Your task to perform on an android device: Empty the shopping cart on bestbuy.com. Search for bose soundlink on bestbuy.com, select the first entry, and add it to the cart. Image 0: 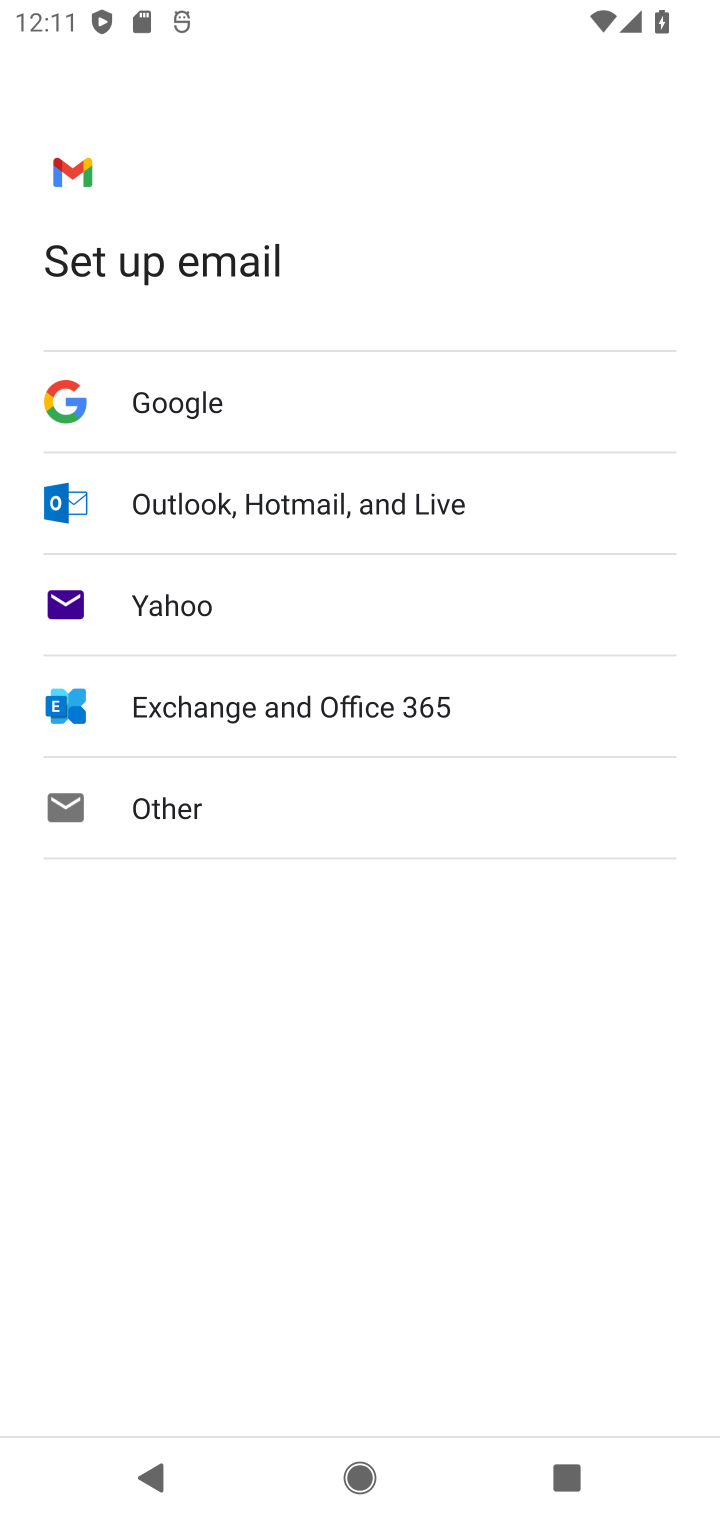
Step 0: press home button
Your task to perform on an android device: Empty the shopping cart on bestbuy.com. Search for bose soundlink on bestbuy.com, select the first entry, and add it to the cart. Image 1: 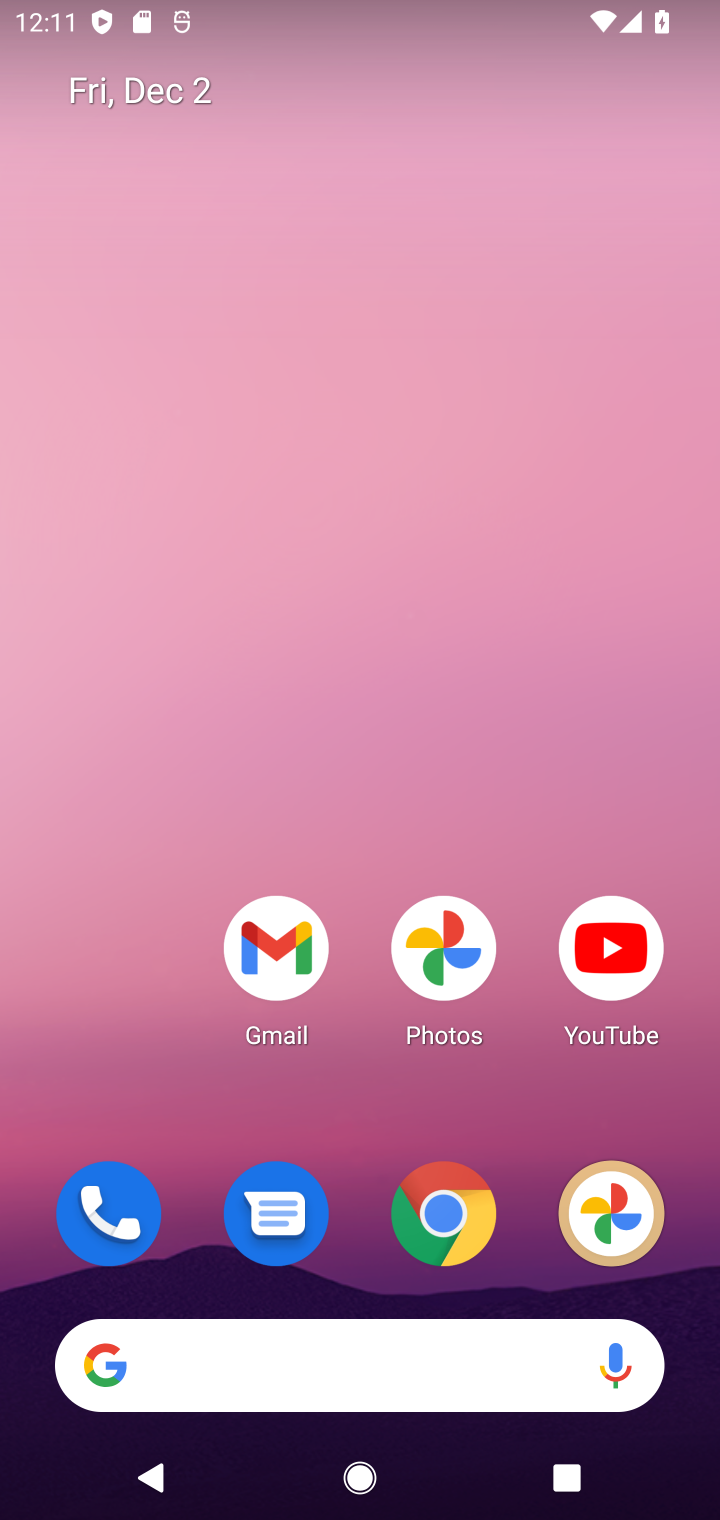
Step 1: drag from (300, 1216) to (320, 363)
Your task to perform on an android device: Empty the shopping cart on bestbuy.com. Search for bose soundlink on bestbuy.com, select the first entry, and add it to the cart. Image 2: 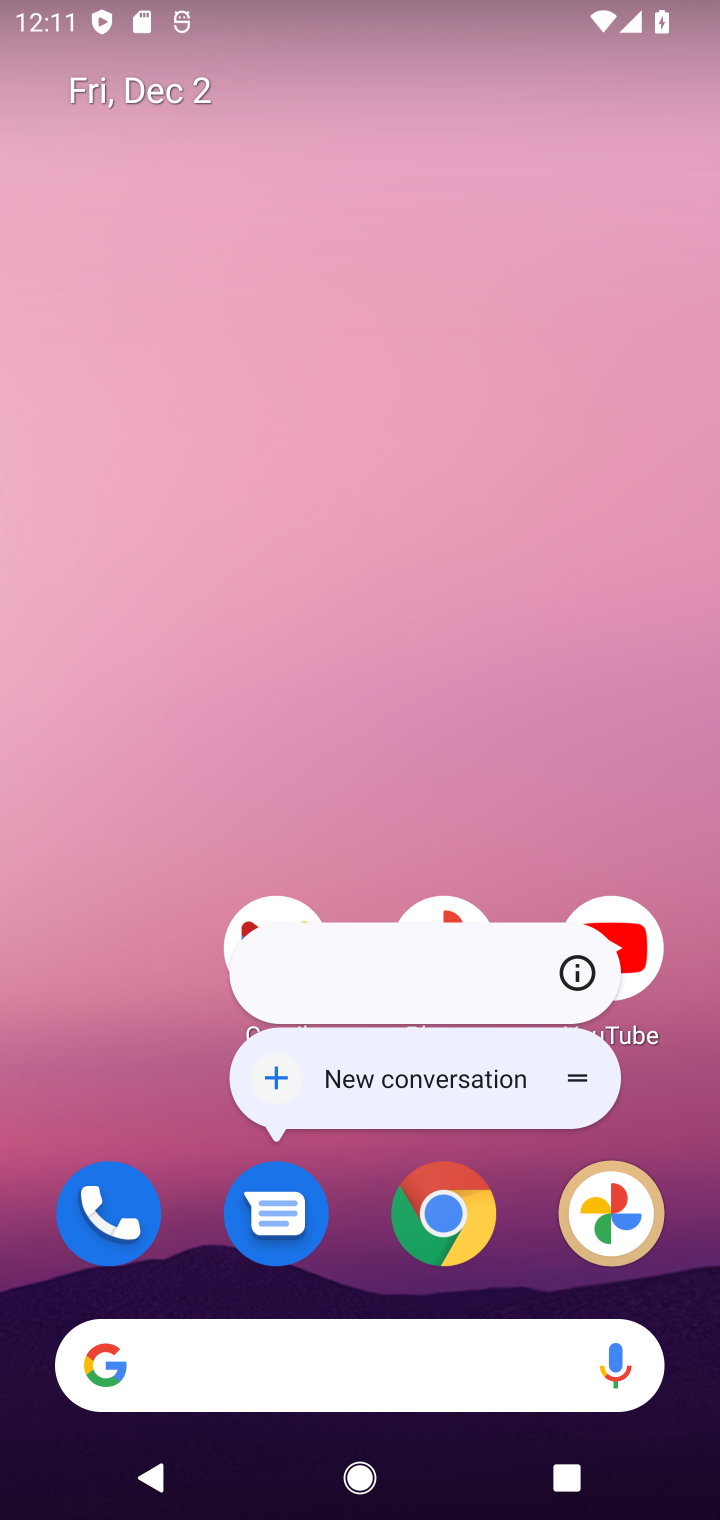
Step 2: drag from (405, 1184) to (408, 494)
Your task to perform on an android device: Empty the shopping cart on bestbuy.com. Search for bose soundlink on bestbuy.com, select the first entry, and add it to the cart. Image 3: 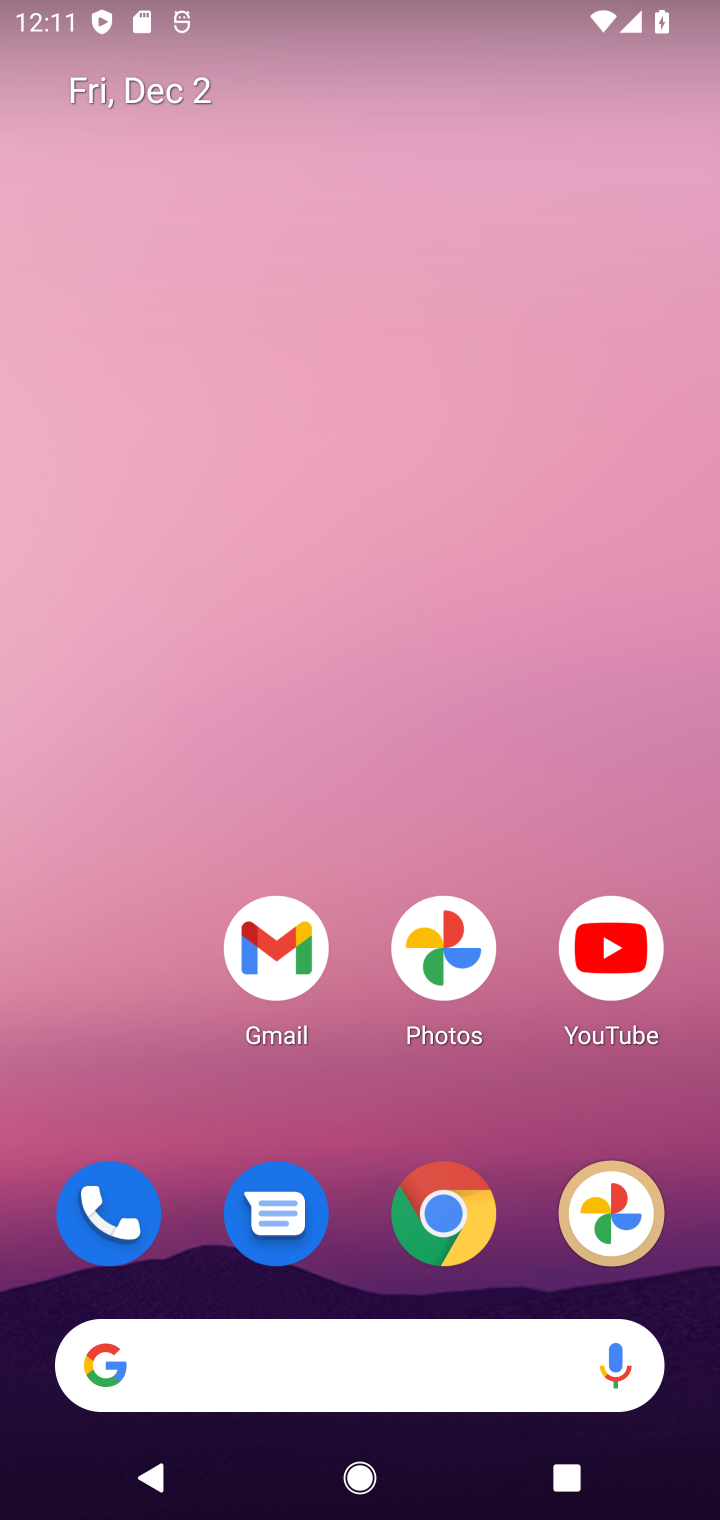
Step 3: drag from (338, 959) to (261, 280)
Your task to perform on an android device: Empty the shopping cart on bestbuy.com. Search for bose soundlink on bestbuy.com, select the first entry, and add it to the cart. Image 4: 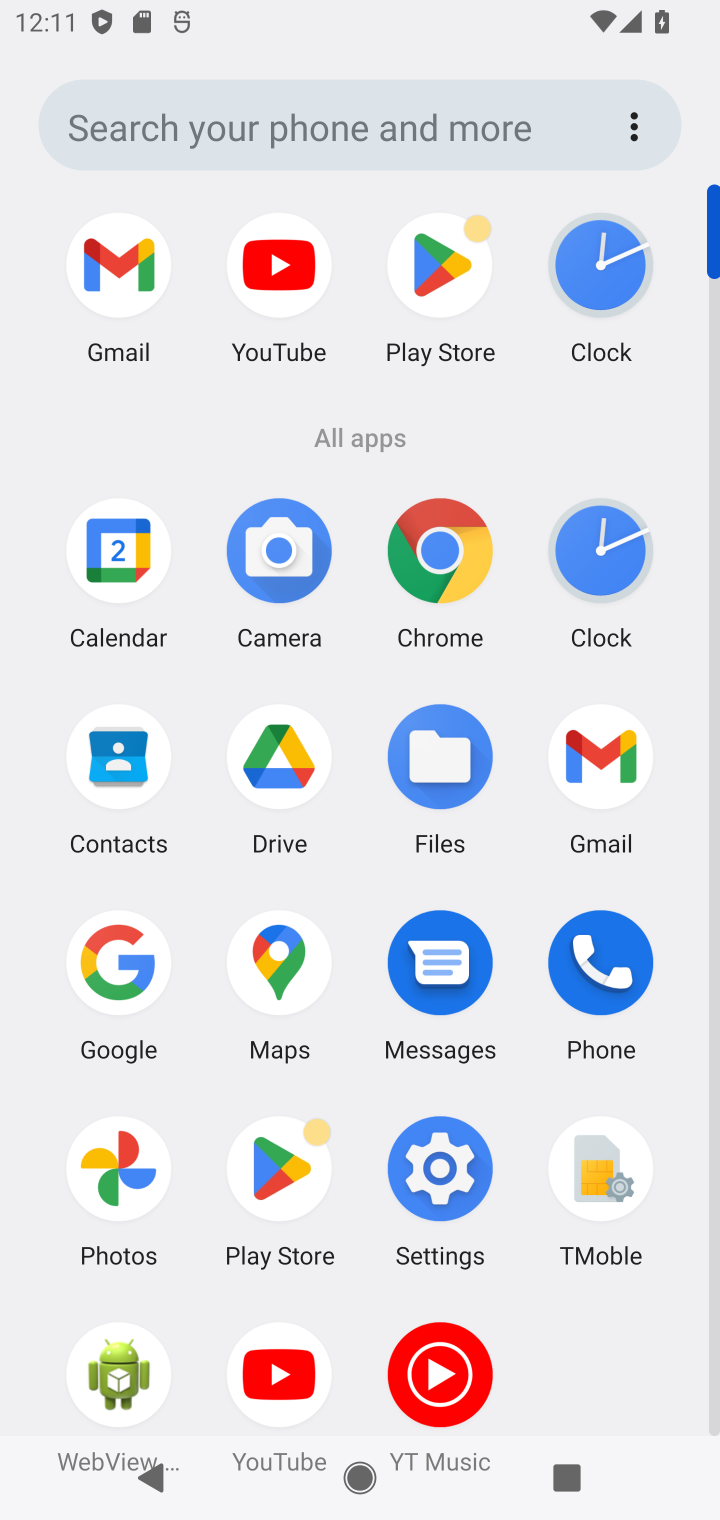
Step 4: click (128, 983)
Your task to perform on an android device: Empty the shopping cart on bestbuy.com. Search for bose soundlink on bestbuy.com, select the first entry, and add it to the cart. Image 5: 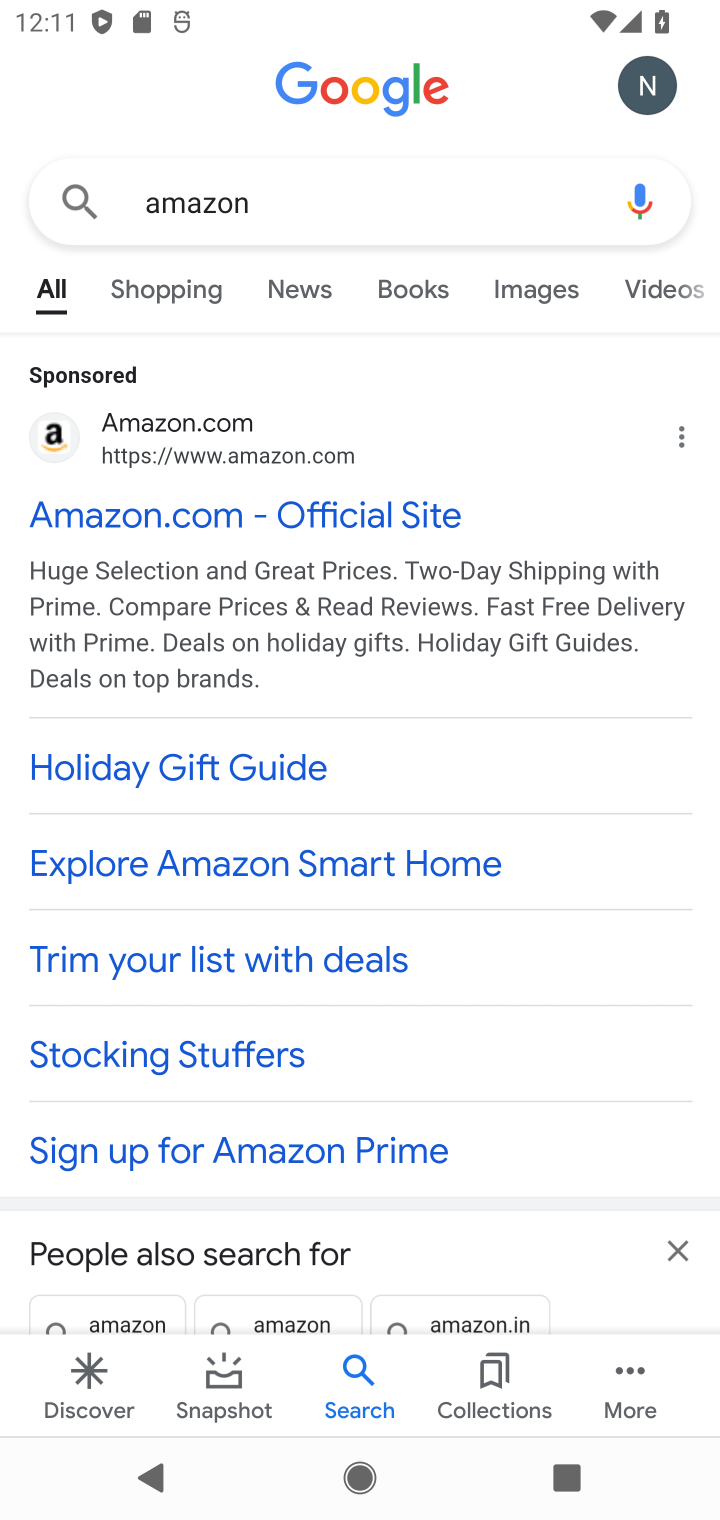
Step 5: click (277, 197)
Your task to perform on an android device: Empty the shopping cart on bestbuy.com. Search for bose soundlink on bestbuy.com, select the first entry, and add it to the cart. Image 6: 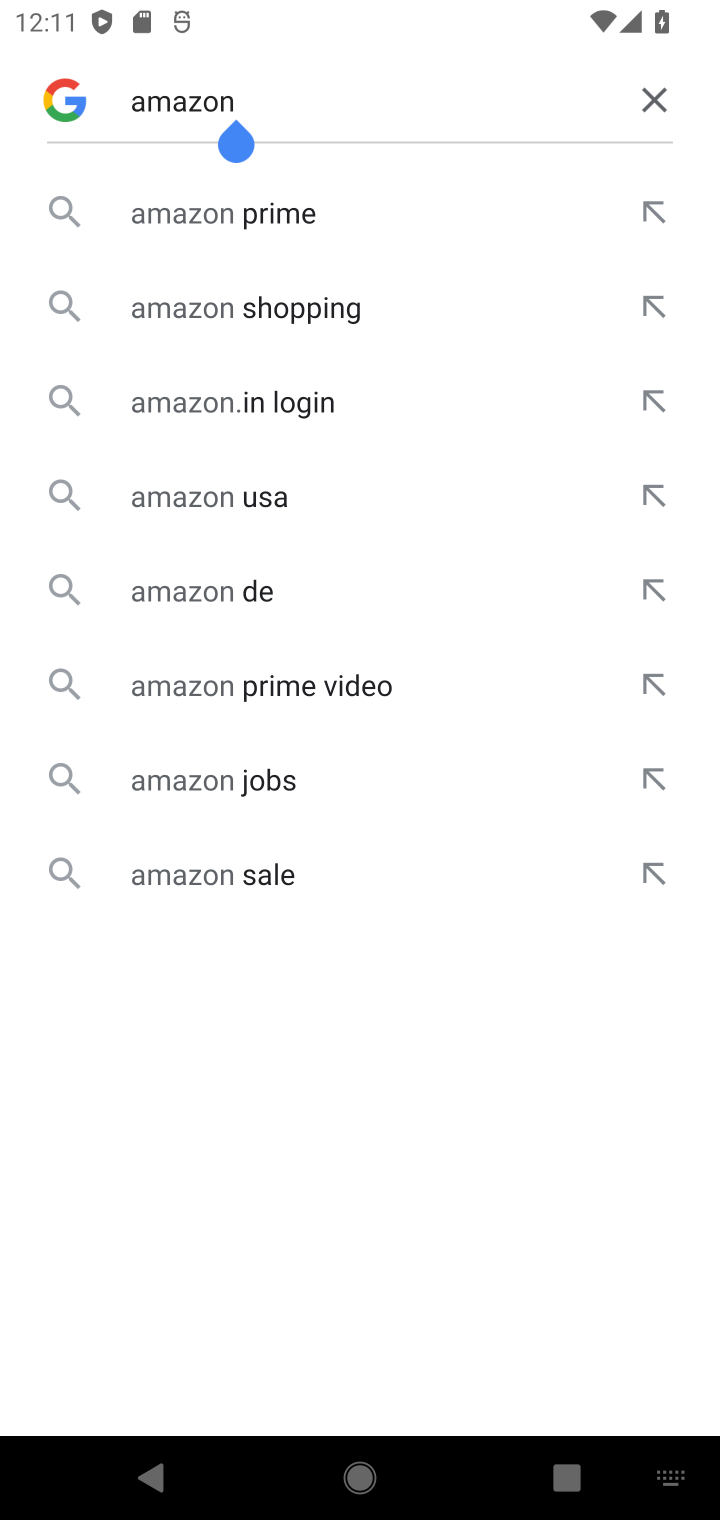
Step 6: click (650, 91)
Your task to perform on an android device: Empty the shopping cart on bestbuy.com. Search for bose soundlink on bestbuy.com, select the first entry, and add it to the cart. Image 7: 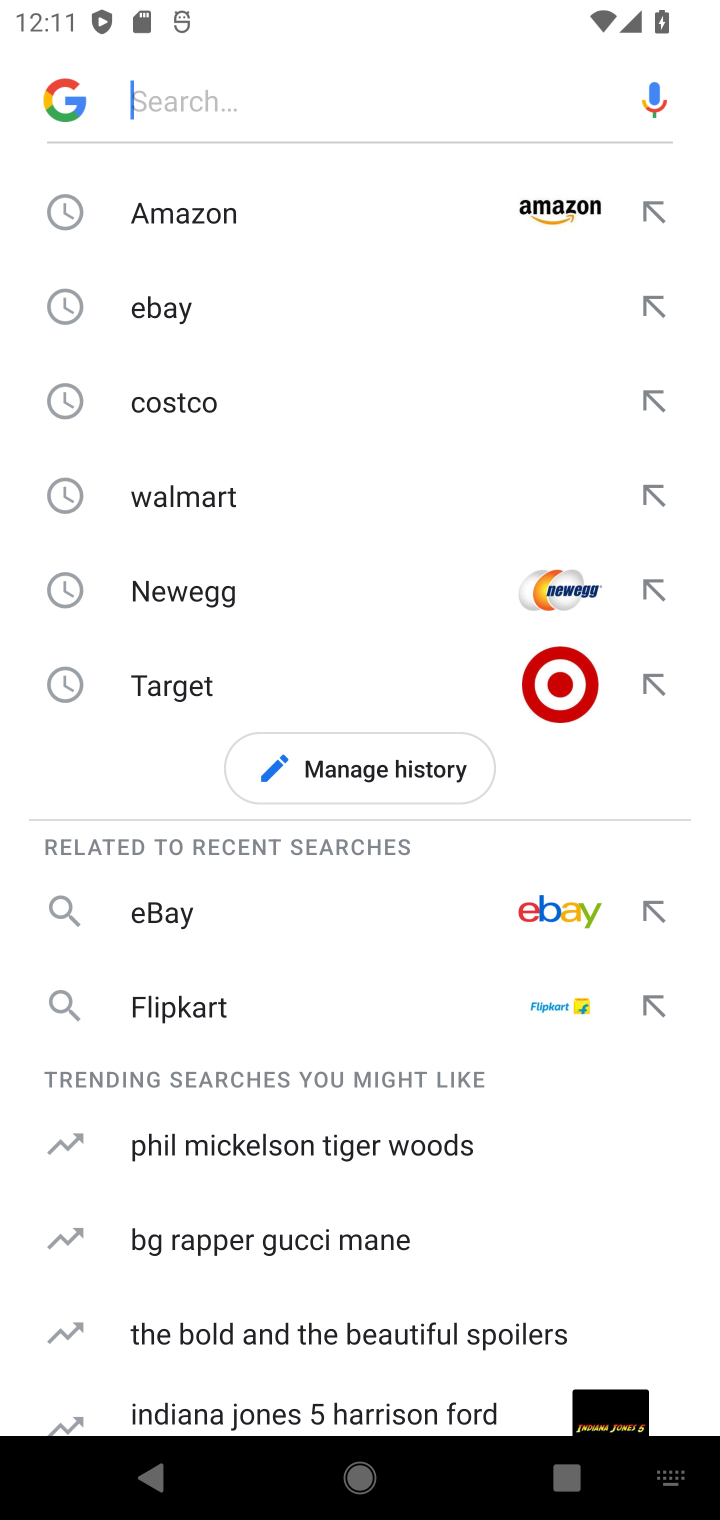
Step 7: drag from (177, 768) to (218, 127)
Your task to perform on an android device: Empty the shopping cart on bestbuy.com. Search for bose soundlink on bestbuy.com, select the first entry, and add it to the cart. Image 8: 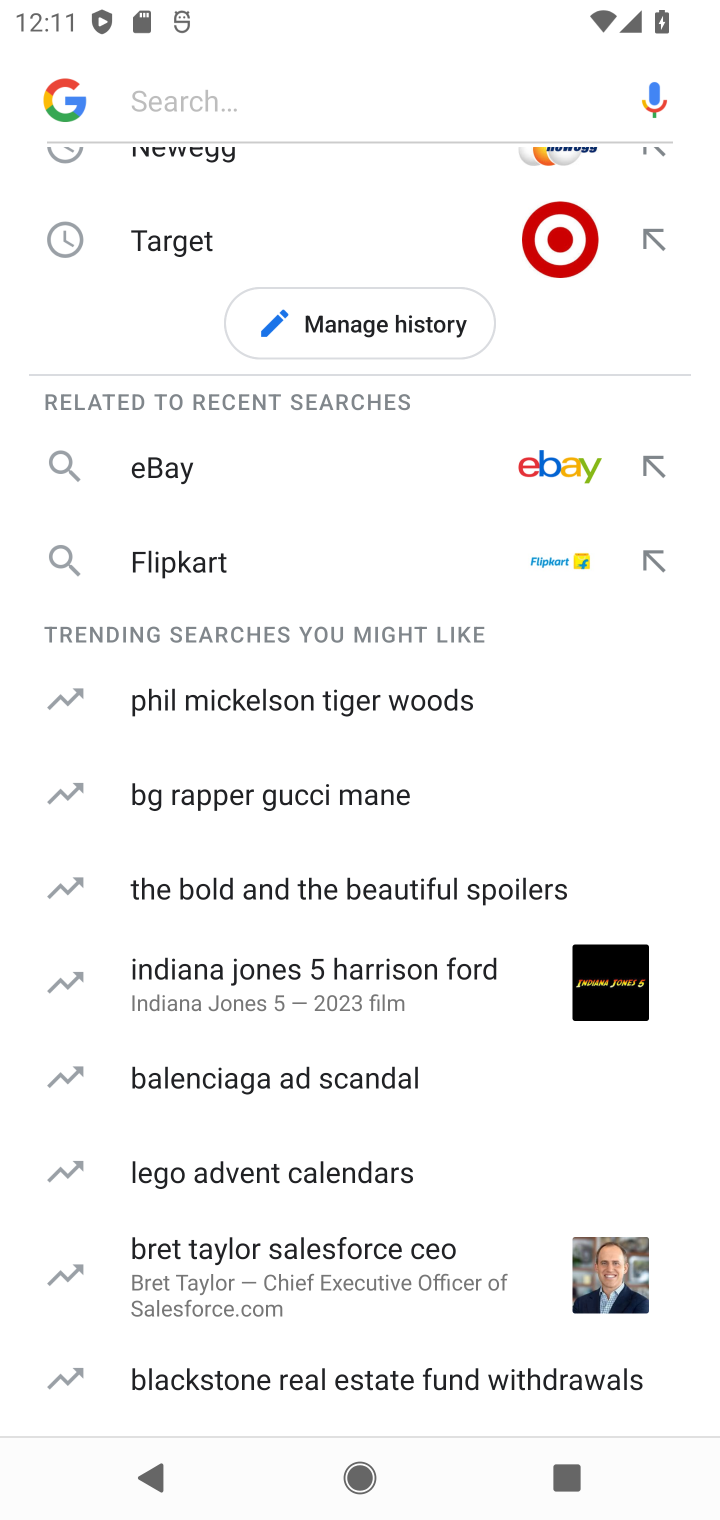
Step 8: drag from (337, 1227) to (337, 612)
Your task to perform on an android device: Empty the shopping cart on bestbuy.com. Search for bose soundlink on bestbuy.com, select the first entry, and add it to the cart. Image 9: 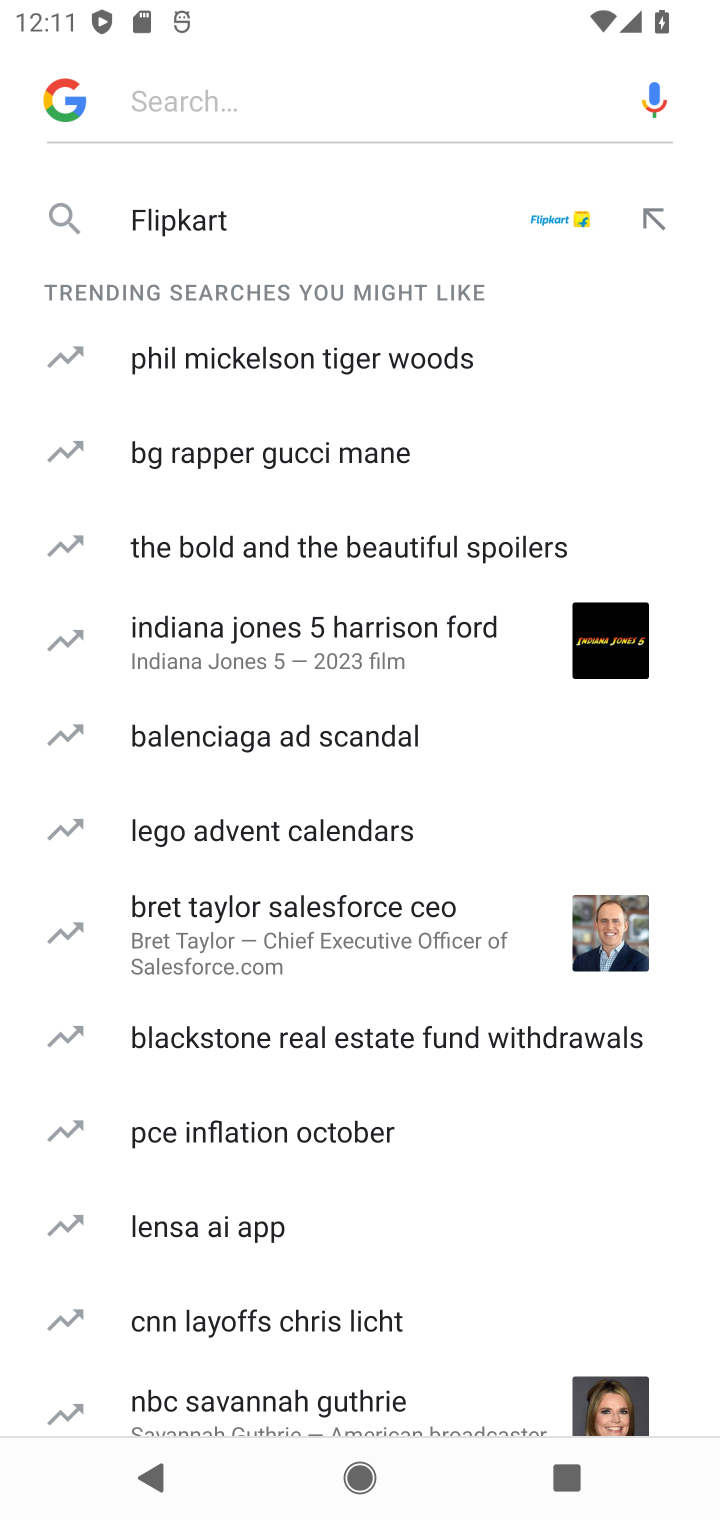
Step 9: drag from (304, 1398) to (312, 650)
Your task to perform on an android device: Empty the shopping cart on bestbuy.com. Search for bose soundlink on bestbuy.com, select the first entry, and add it to the cart. Image 10: 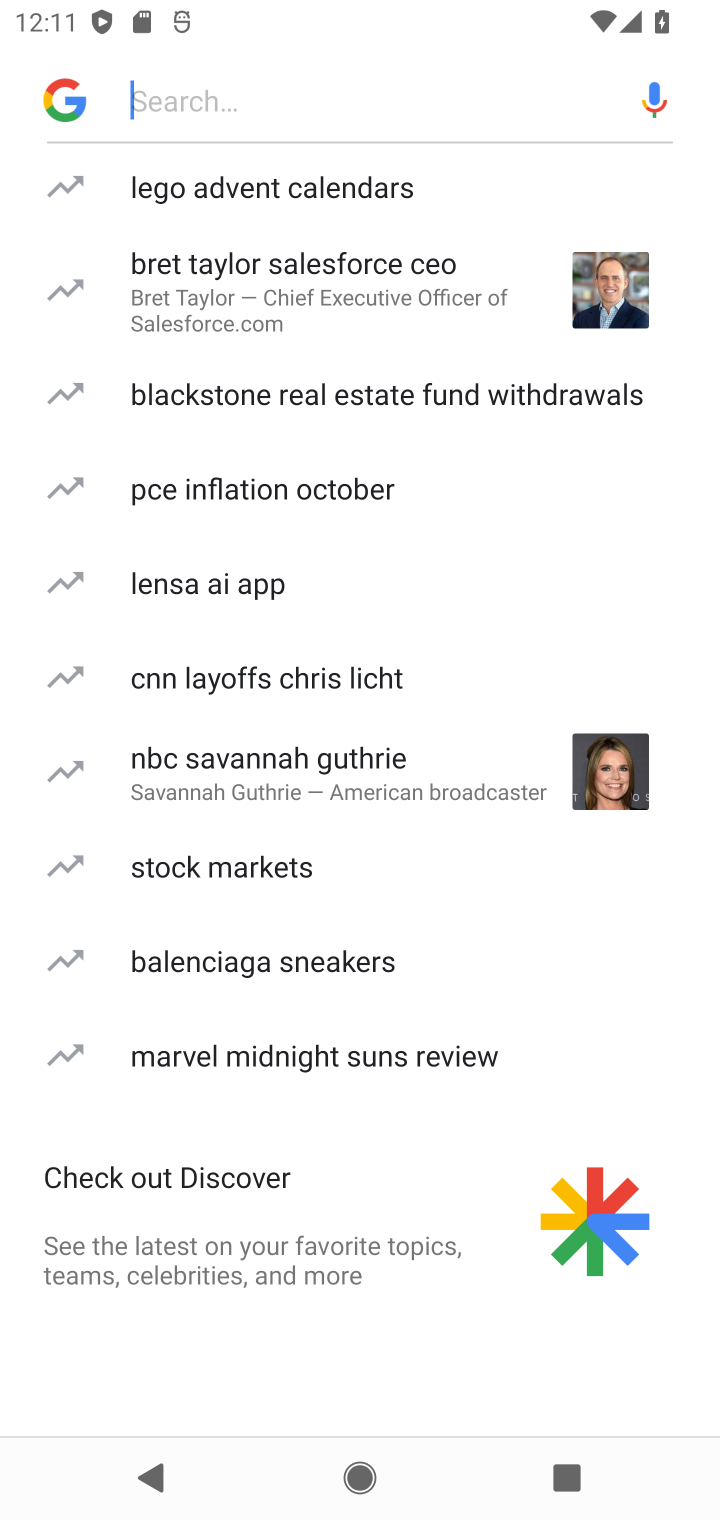
Step 10: drag from (409, 221) to (495, 1078)
Your task to perform on an android device: Empty the shopping cart on bestbuy.com. Search for bose soundlink on bestbuy.com, select the first entry, and add it to the cart. Image 11: 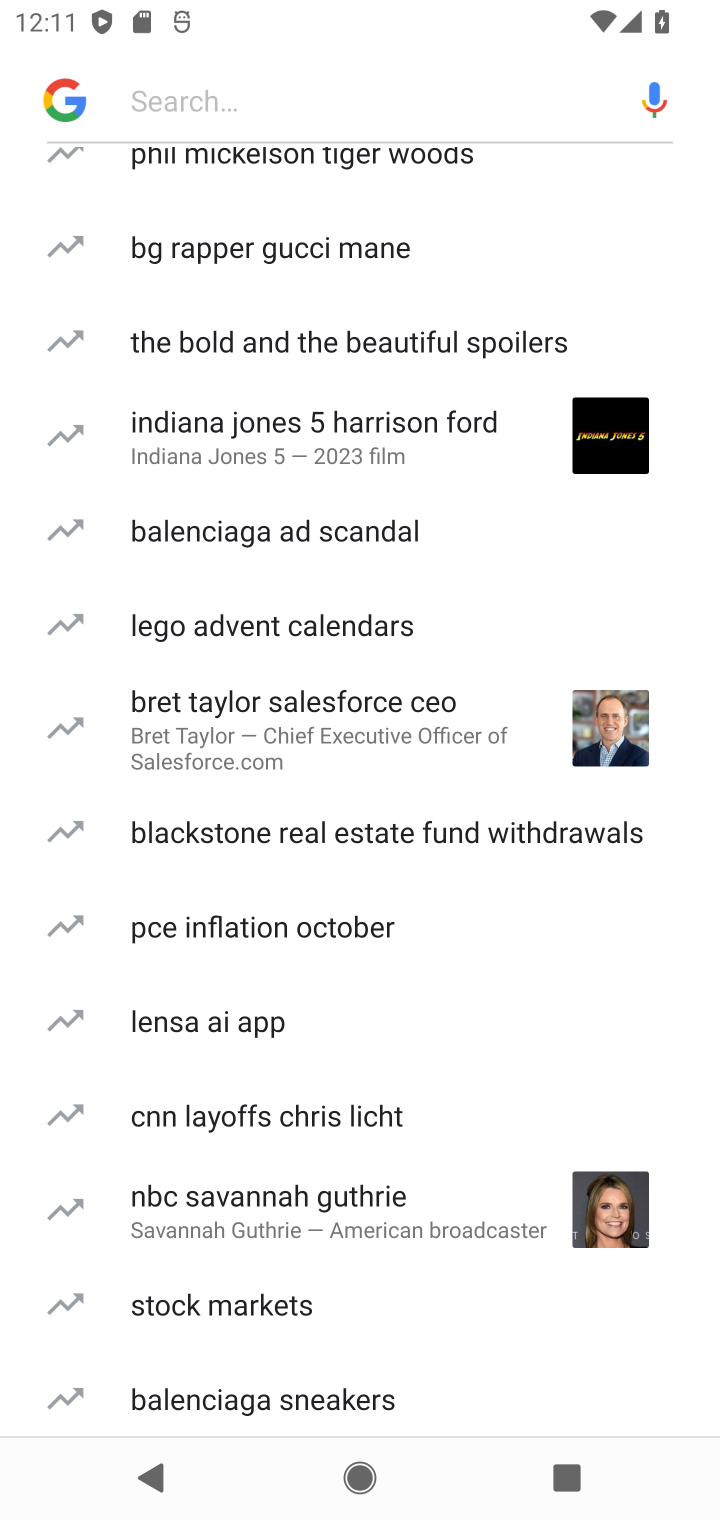
Step 11: drag from (181, 193) to (287, 902)
Your task to perform on an android device: Empty the shopping cart on bestbuy.com. Search for bose soundlink on bestbuy.com, select the first entry, and add it to the cart. Image 12: 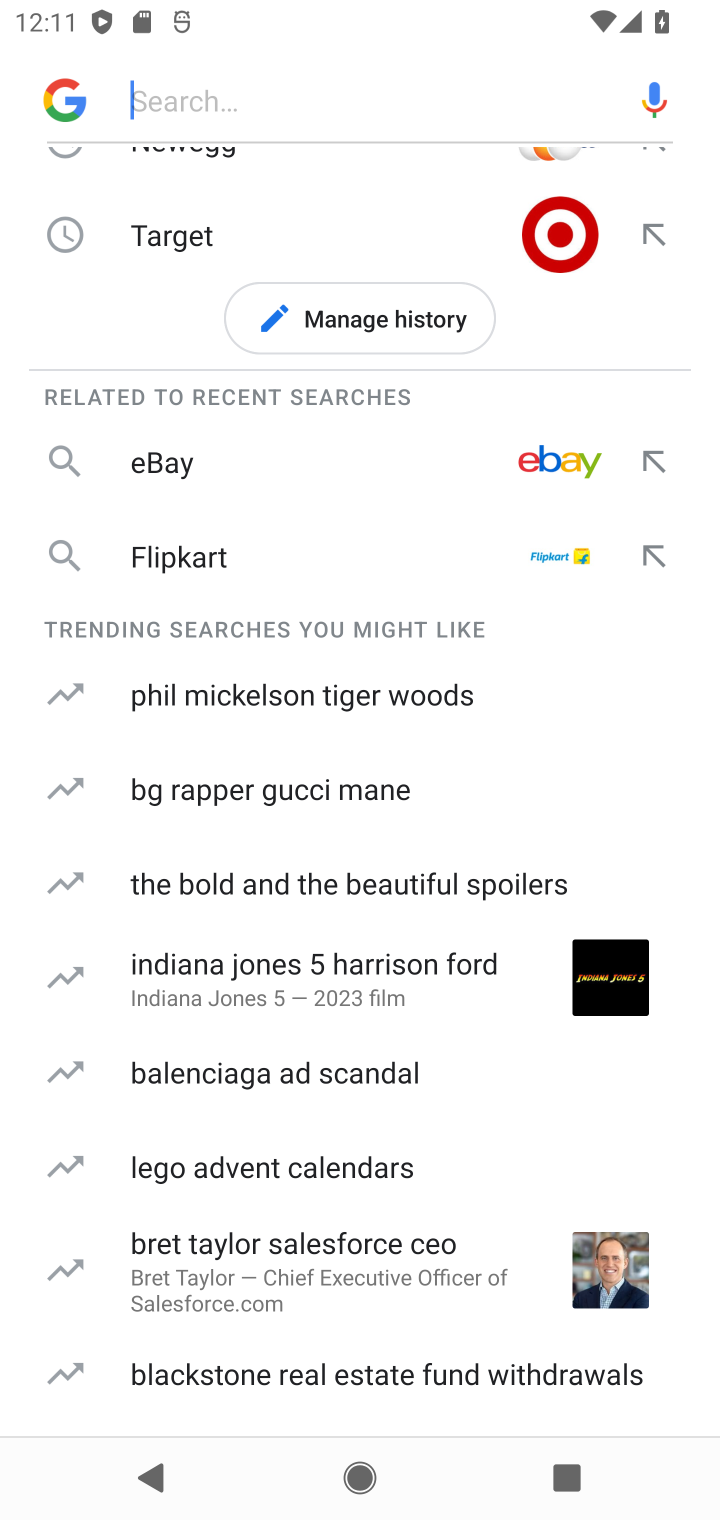
Step 12: drag from (157, 281) to (294, 912)
Your task to perform on an android device: Empty the shopping cart on bestbuy.com. Search for bose soundlink on bestbuy.com, select the first entry, and add it to the cart. Image 13: 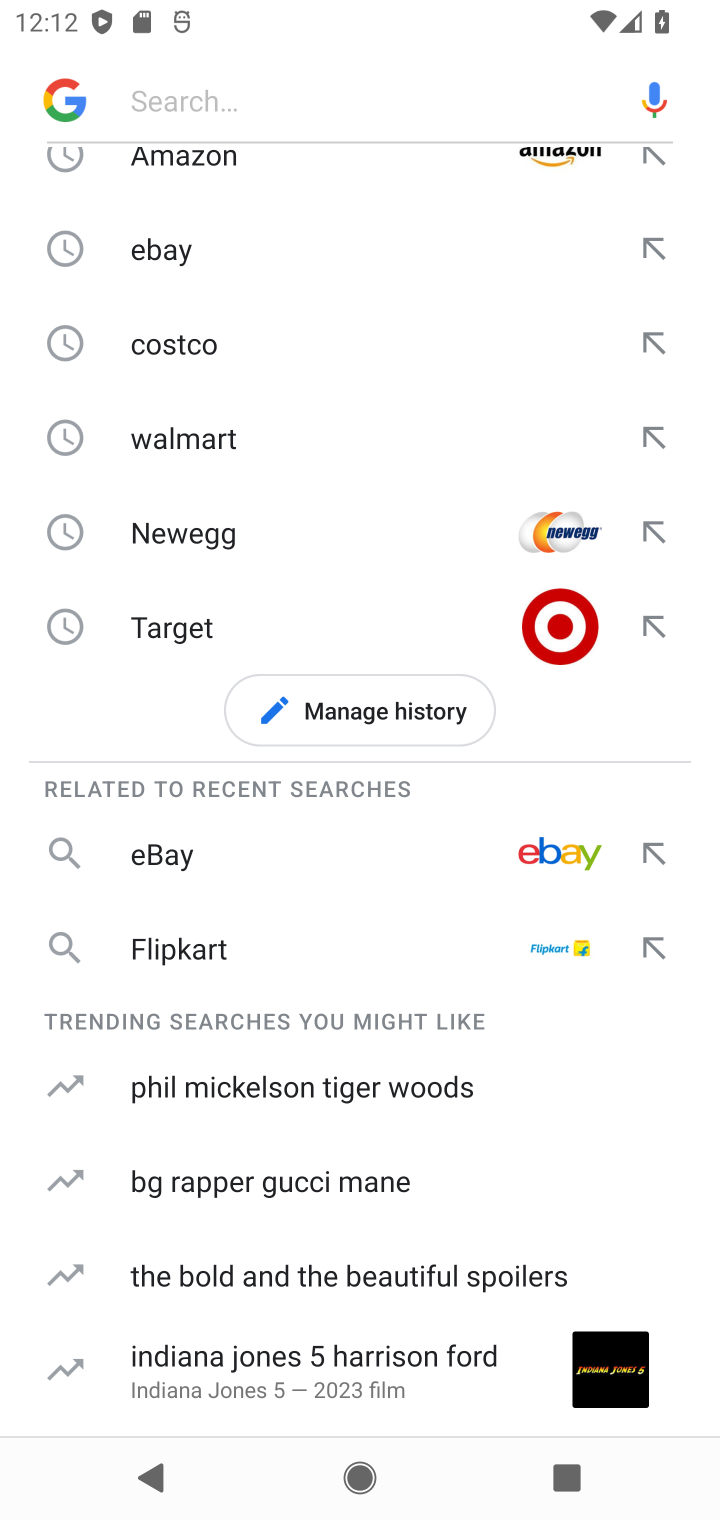
Step 13: drag from (240, 316) to (340, 937)
Your task to perform on an android device: Empty the shopping cart on bestbuy.com. Search for bose soundlink on bestbuy.com, select the first entry, and add it to the cart. Image 14: 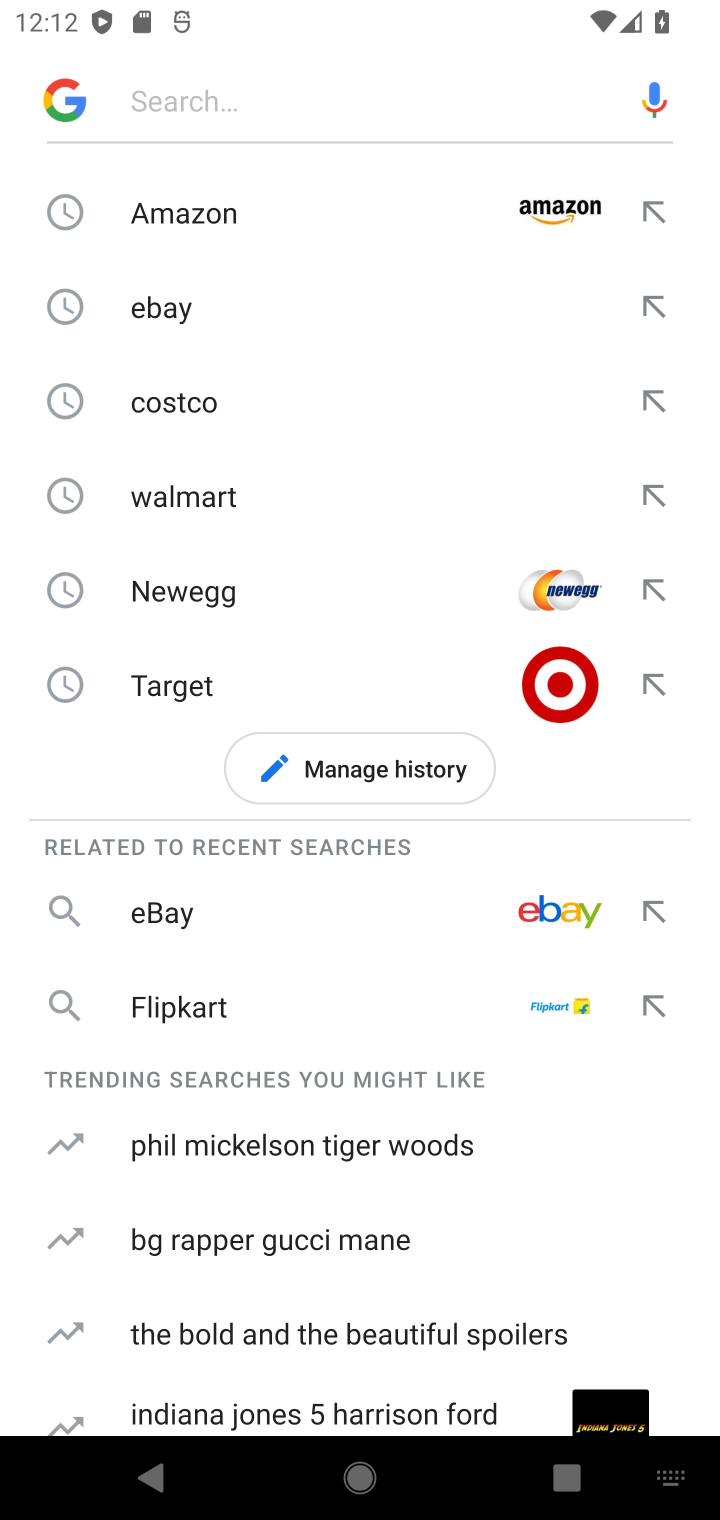
Step 14: drag from (183, 195) to (281, 840)
Your task to perform on an android device: Empty the shopping cart on bestbuy.com. Search for bose soundlink on bestbuy.com, select the first entry, and add it to the cart. Image 15: 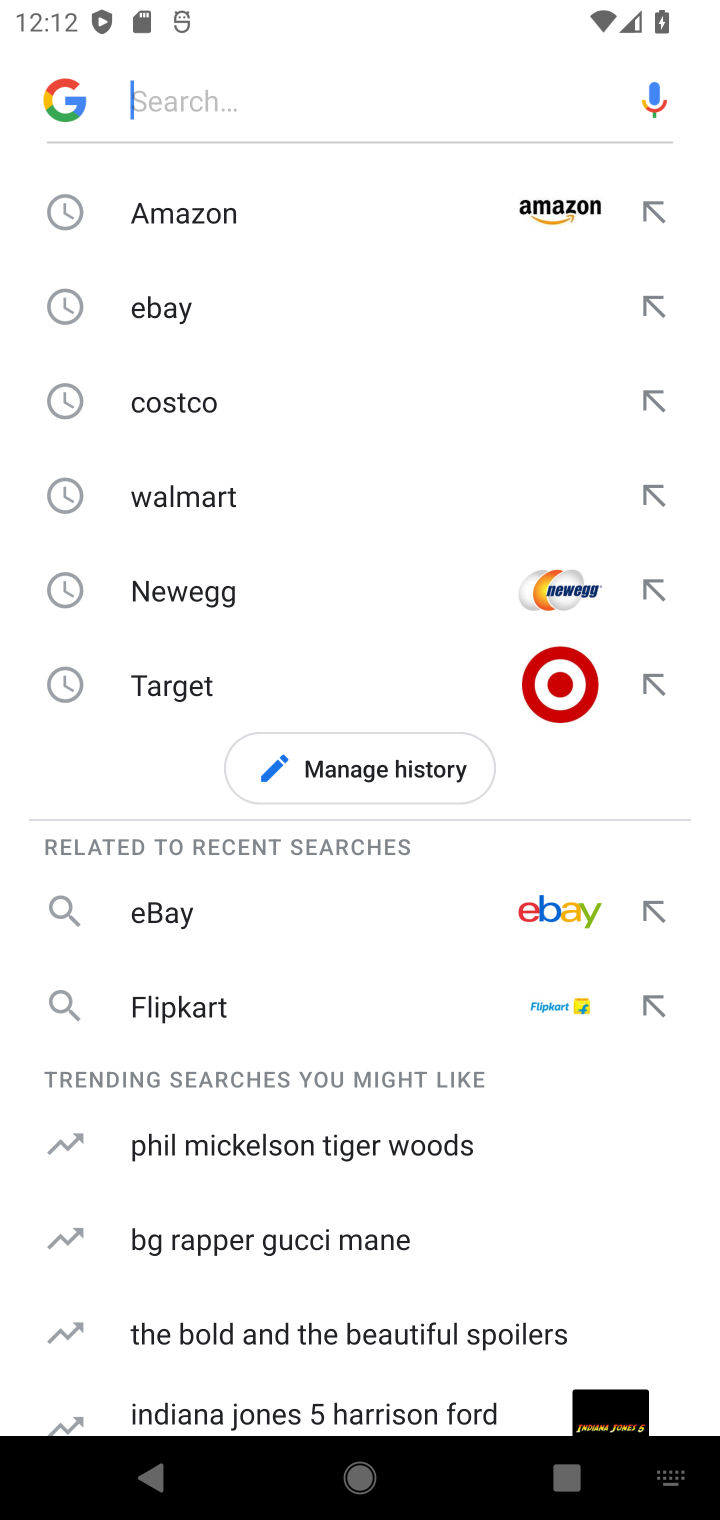
Step 15: type "bestbuy.com"
Your task to perform on an android device: Empty the shopping cart on bestbuy.com. Search for bose soundlink on bestbuy.com, select the first entry, and add it to the cart. Image 16: 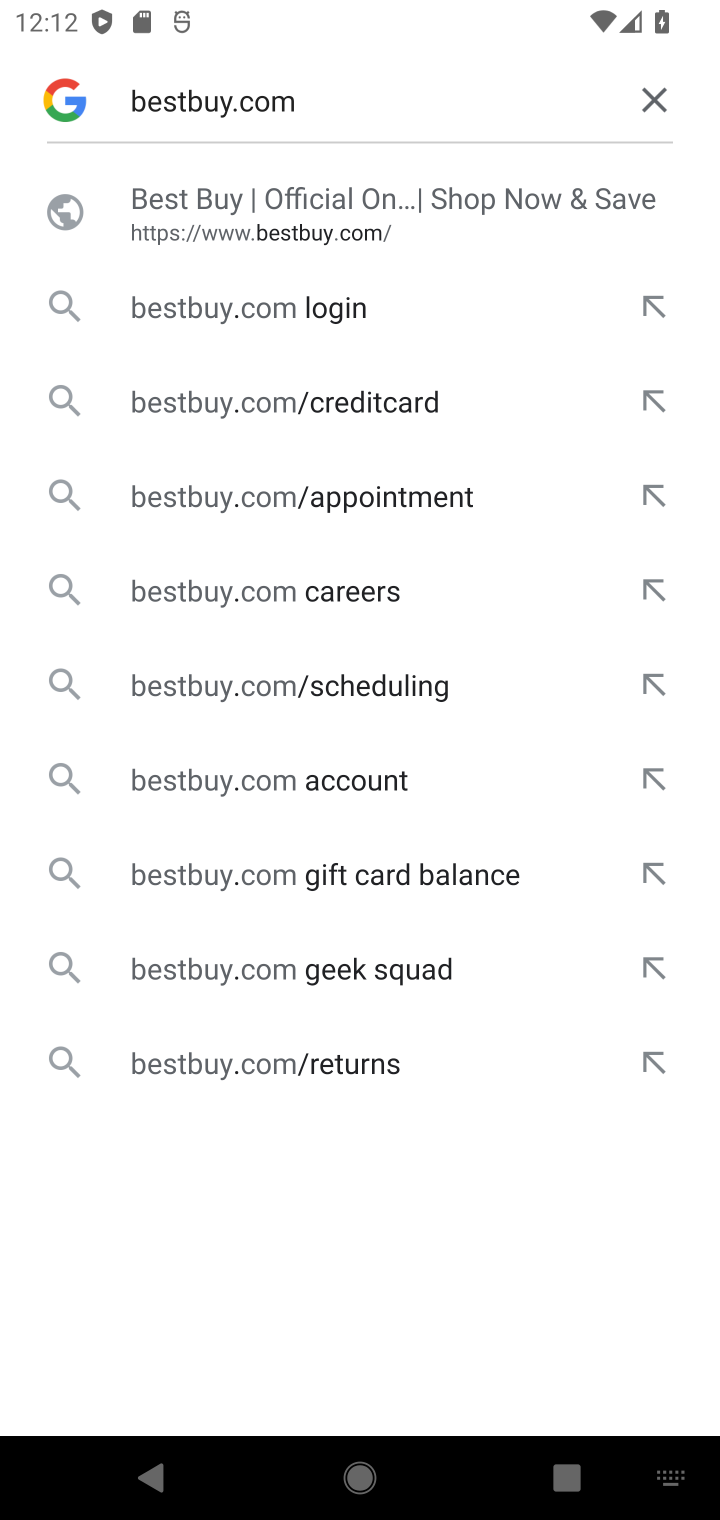
Step 16: click (190, 215)
Your task to perform on an android device: Empty the shopping cart on bestbuy.com. Search for bose soundlink on bestbuy.com, select the first entry, and add it to the cart. Image 17: 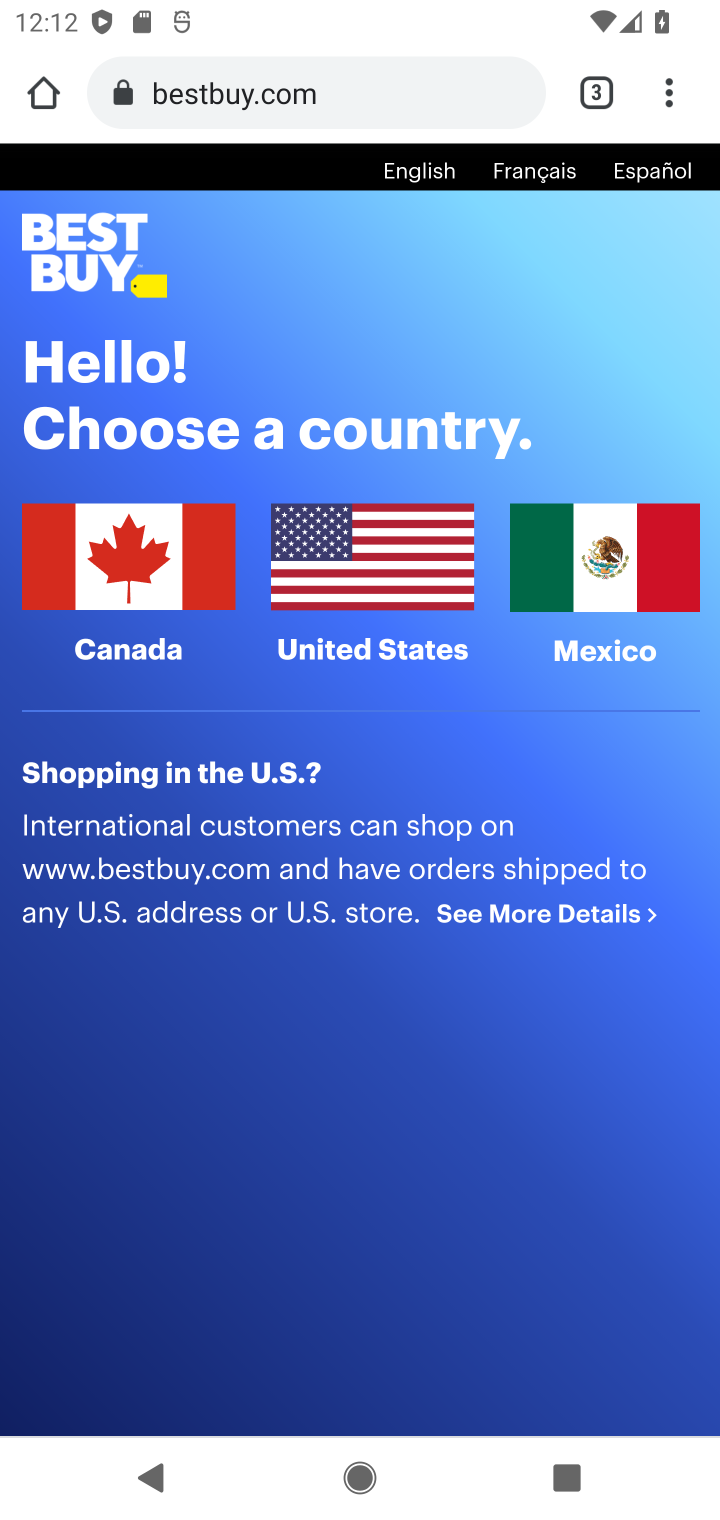
Step 17: click (441, 555)
Your task to perform on an android device: Empty the shopping cart on bestbuy.com. Search for bose soundlink on bestbuy.com, select the first entry, and add it to the cart. Image 18: 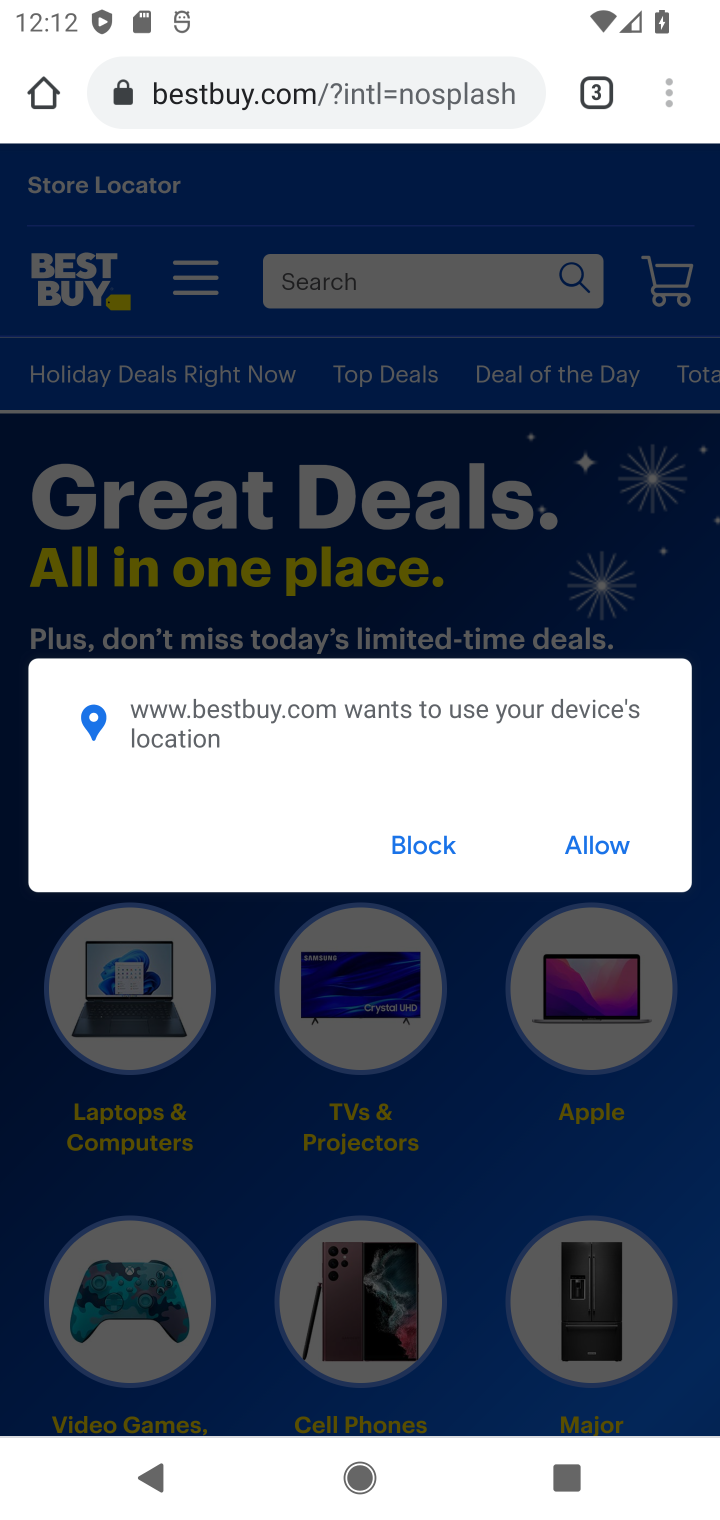
Step 18: click (422, 840)
Your task to perform on an android device: Empty the shopping cart on bestbuy.com. Search for bose soundlink on bestbuy.com, select the first entry, and add it to the cart. Image 19: 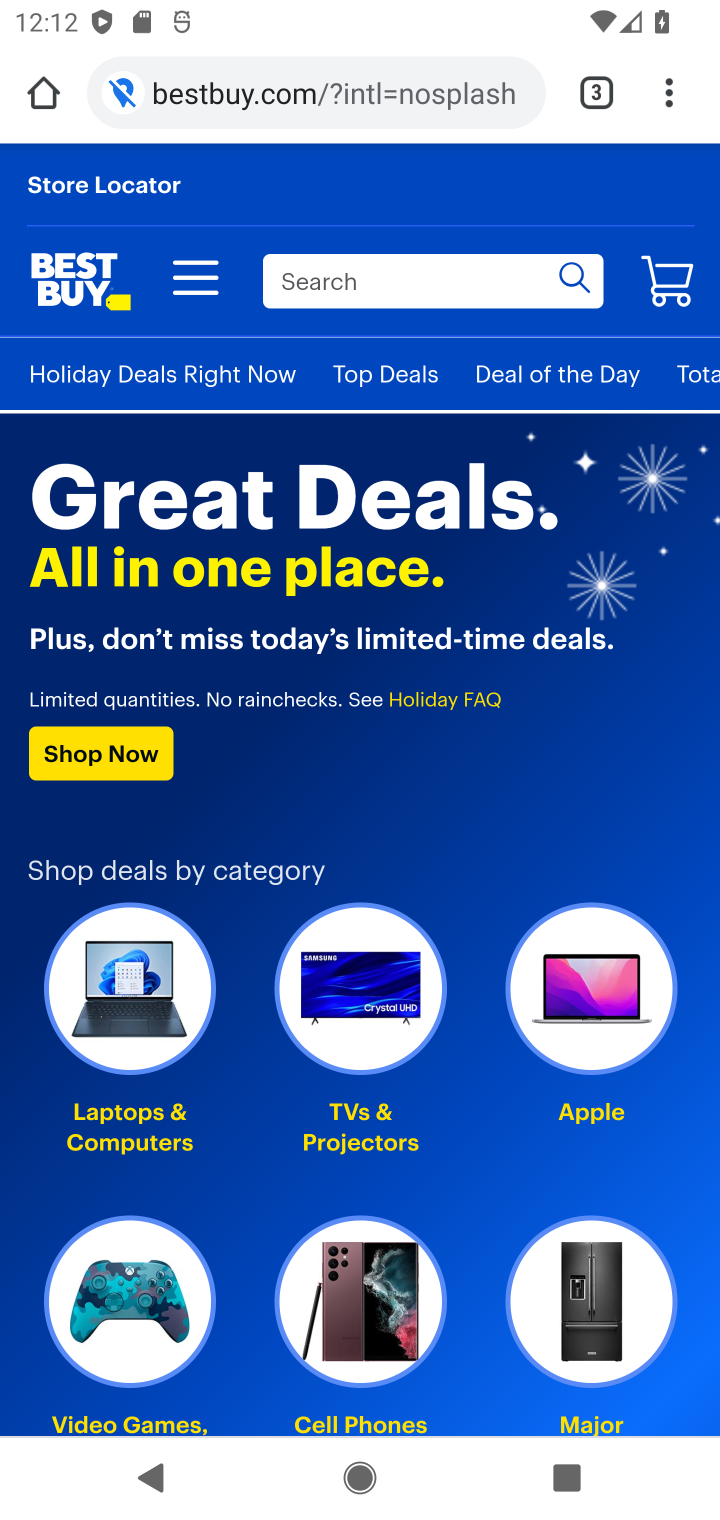
Step 19: click (369, 271)
Your task to perform on an android device: Empty the shopping cart on bestbuy.com. Search for bose soundlink on bestbuy.com, select the first entry, and add it to the cart. Image 20: 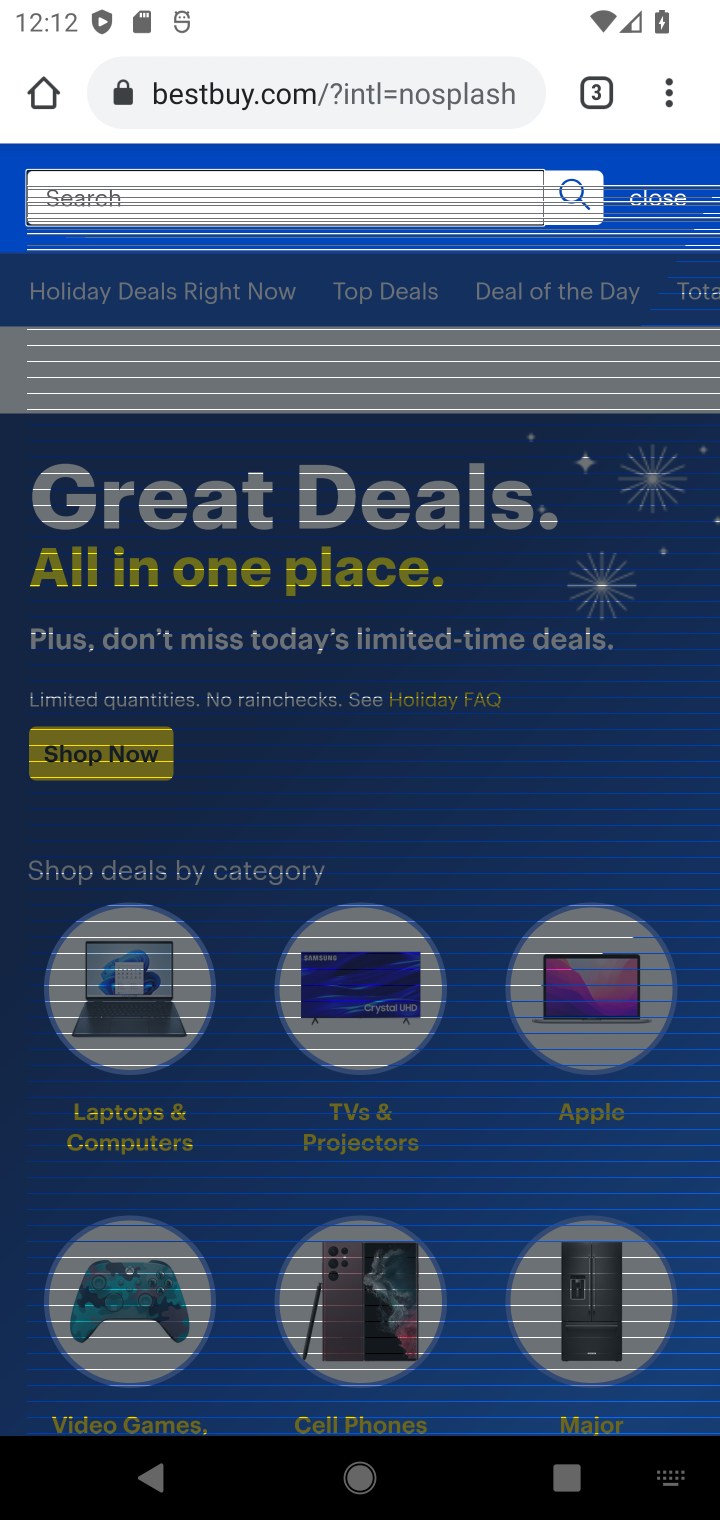
Step 20: type "bose soundlink"
Your task to perform on an android device: Empty the shopping cart on bestbuy.com. Search for bose soundlink on bestbuy.com, select the first entry, and add it to the cart. Image 21: 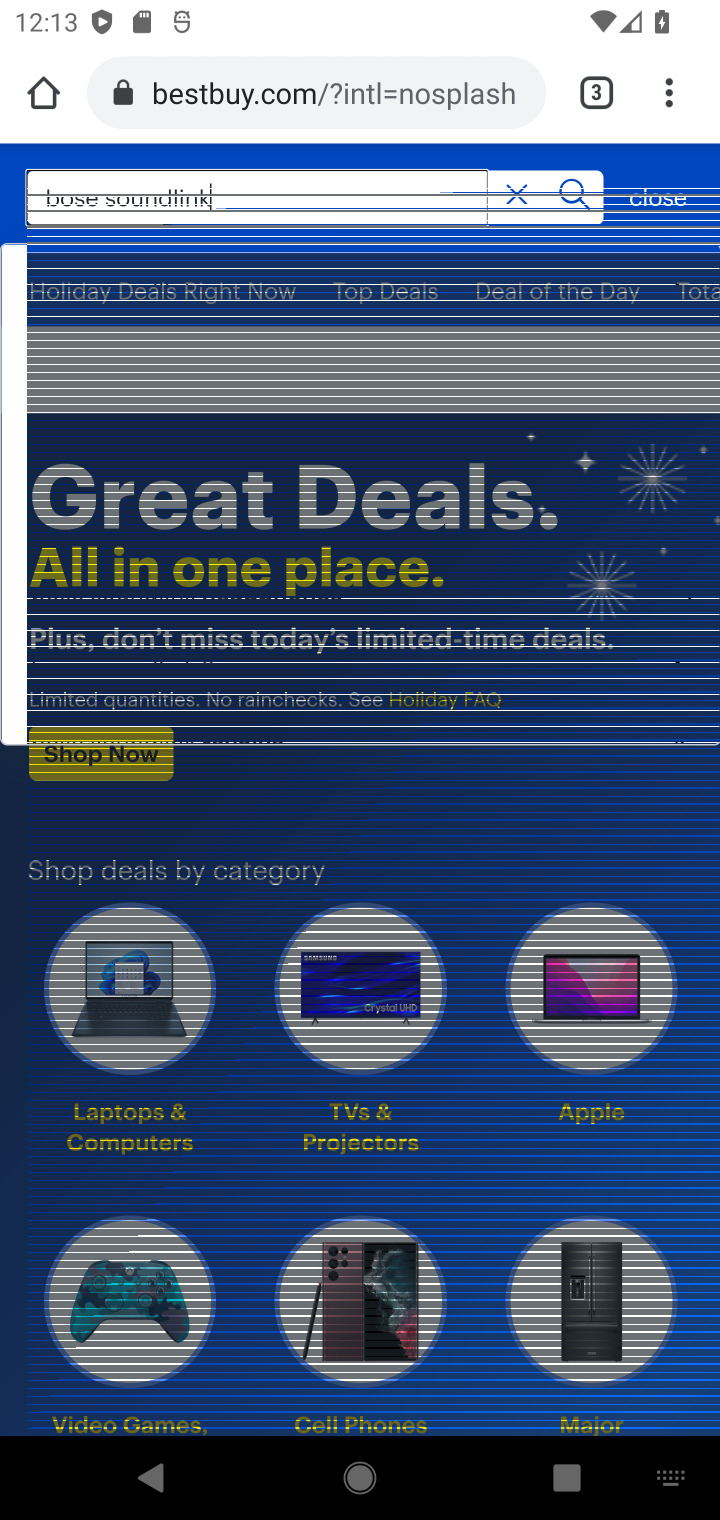
Step 21: click (119, 286)
Your task to perform on an android device: Empty the shopping cart on bestbuy.com. Search for bose soundlink on bestbuy.com, select the first entry, and add it to the cart. Image 22: 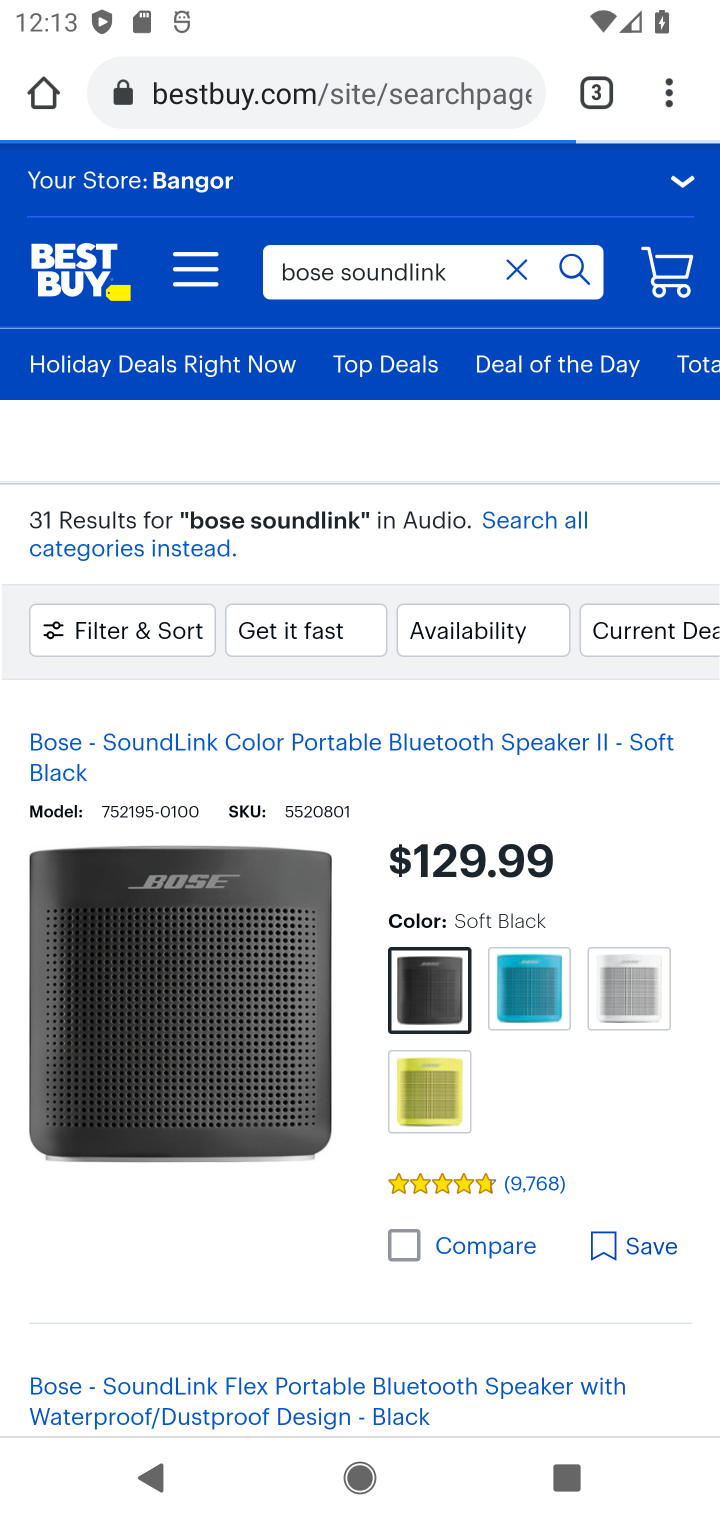
Step 22: drag from (466, 1332) to (489, 746)
Your task to perform on an android device: Empty the shopping cart on bestbuy.com. Search for bose soundlink on bestbuy.com, select the first entry, and add it to the cart. Image 23: 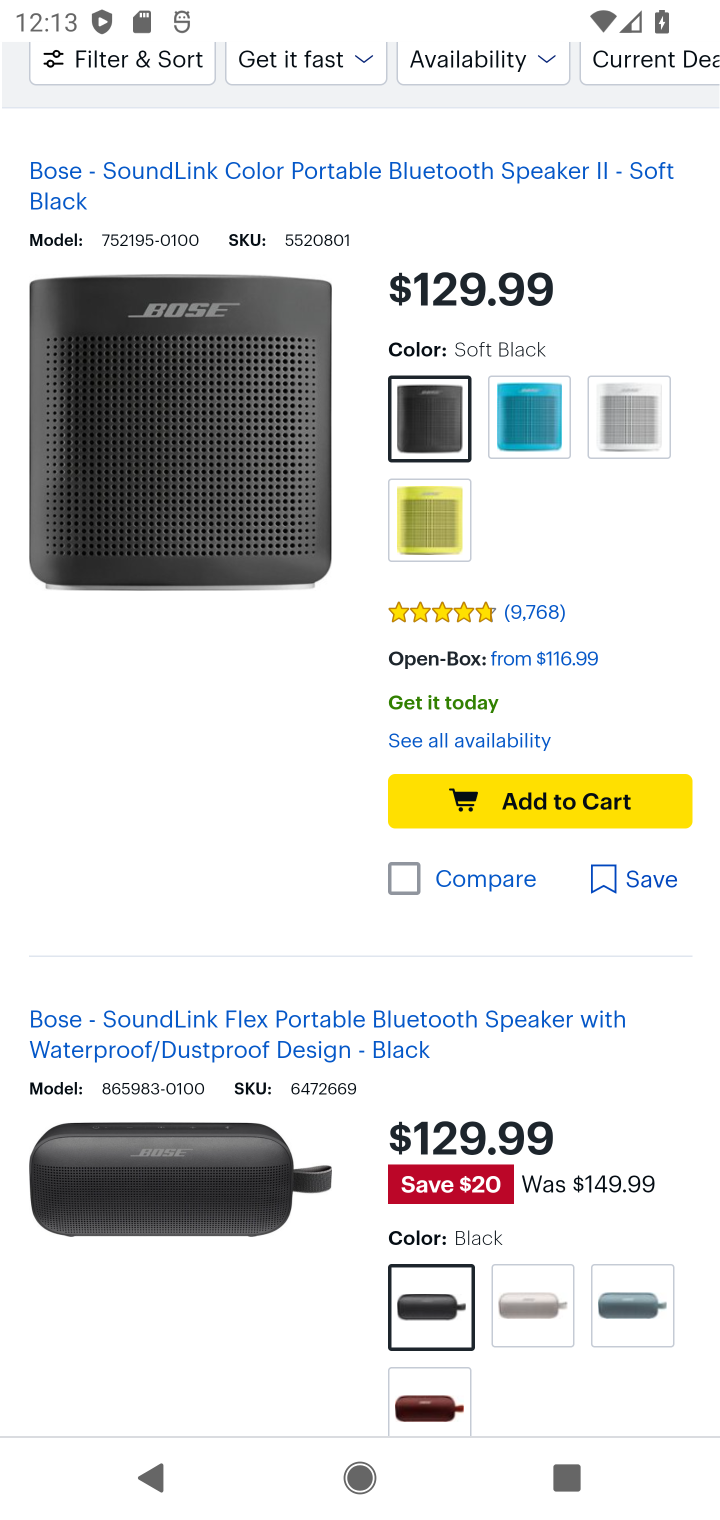
Step 23: click (571, 790)
Your task to perform on an android device: Empty the shopping cart on bestbuy.com. Search for bose soundlink on bestbuy.com, select the first entry, and add it to the cart. Image 24: 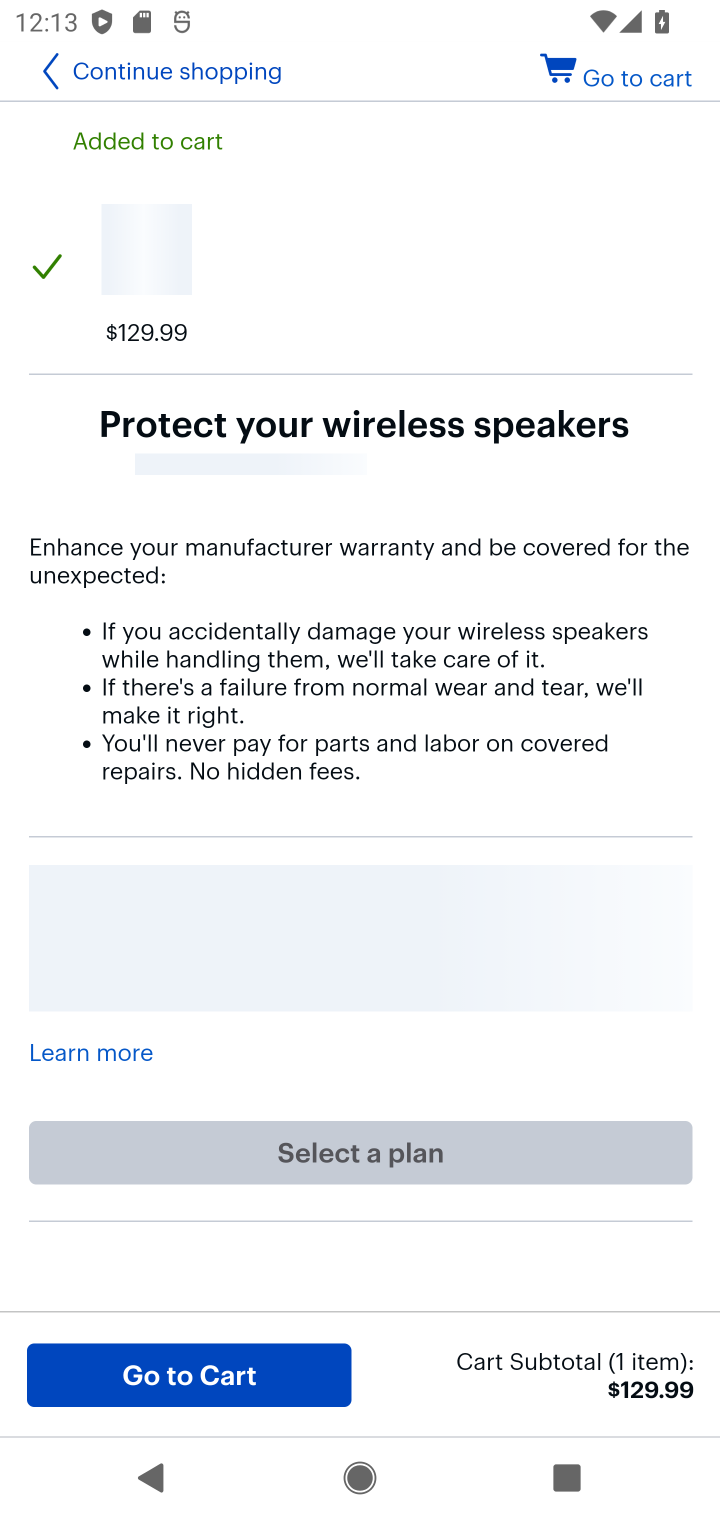
Step 24: click (232, 1382)
Your task to perform on an android device: Empty the shopping cart on bestbuy.com. Search for bose soundlink on bestbuy.com, select the first entry, and add it to the cart. Image 25: 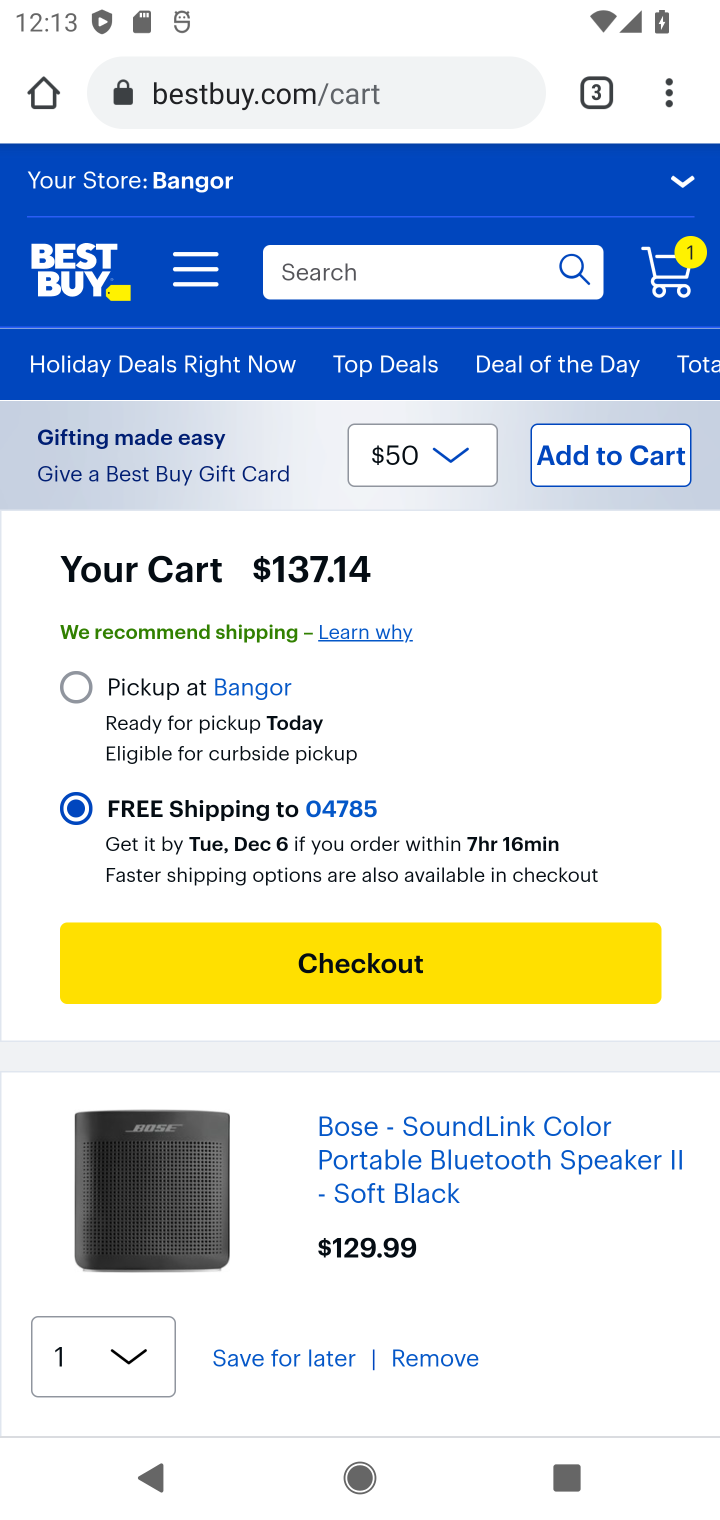
Step 25: click (381, 953)
Your task to perform on an android device: Empty the shopping cart on bestbuy.com. Search for bose soundlink on bestbuy.com, select the first entry, and add it to the cart. Image 26: 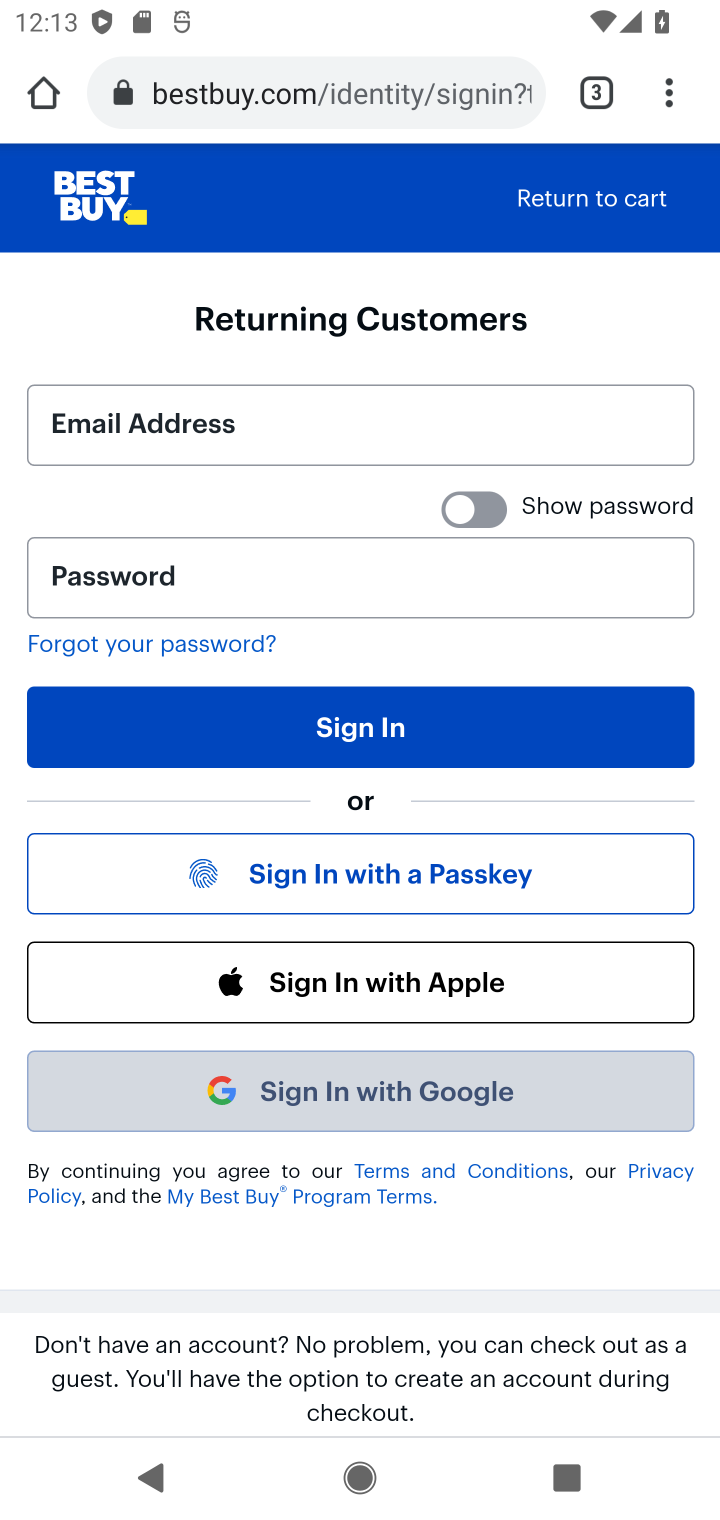
Step 26: task complete